Your task to perform on an android device: Open internet settings Image 0: 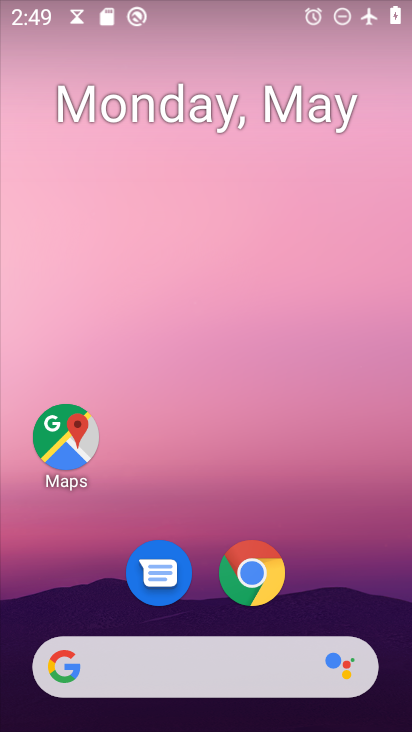
Step 0: drag from (273, 640) to (286, 106)
Your task to perform on an android device: Open internet settings Image 1: 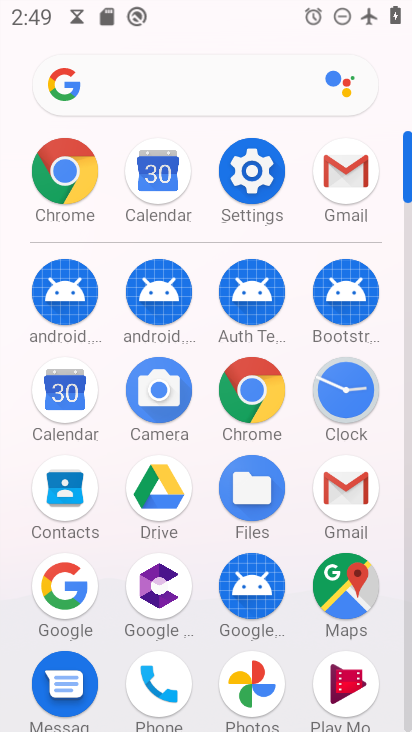
Step 1: click (270, 181)
Your task to perform on an android device: Open internet settings Image 2: 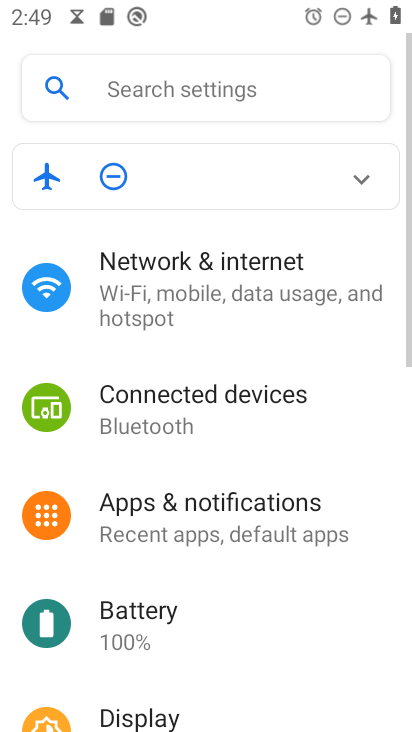
Step 2: click (196, 320)
Your task to perform on an android device: Open internet settings Image 3: 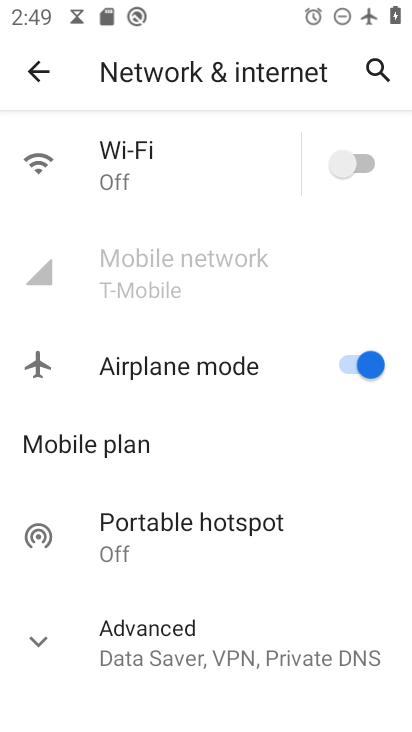
Step 3: task complete